Your task to perform on an android device: toggle show notifications on the lock screen Image 0: 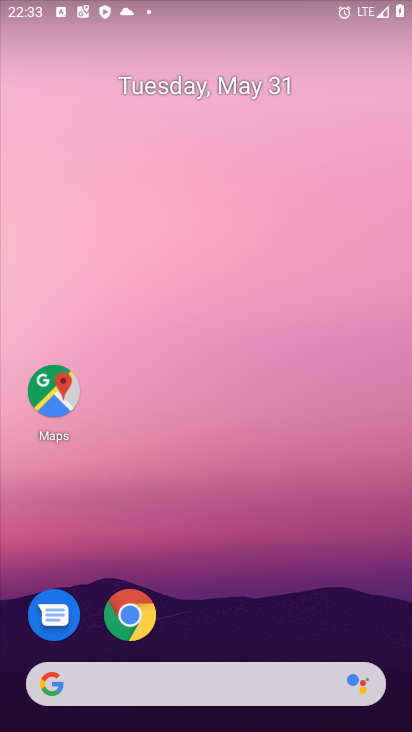
Step 0: drag from (374, 631) to (323, 134)
Your task to perform on an android device: toggle show notifications on the lock screen Image 1: 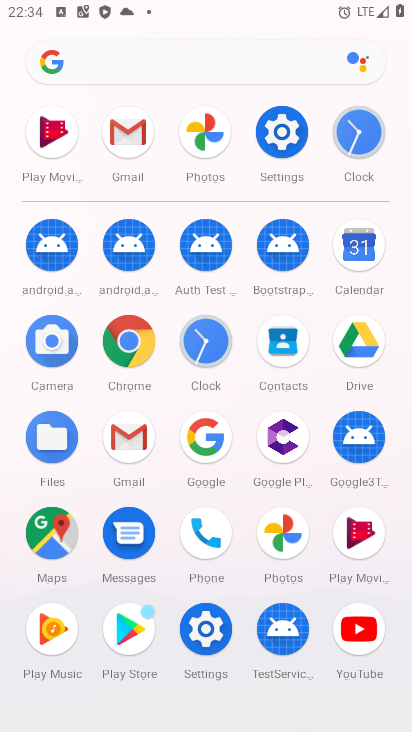
Step 1: click (205, 630)
Your task to perform on an android device: toggle show notifications on the lock screen Image 2: 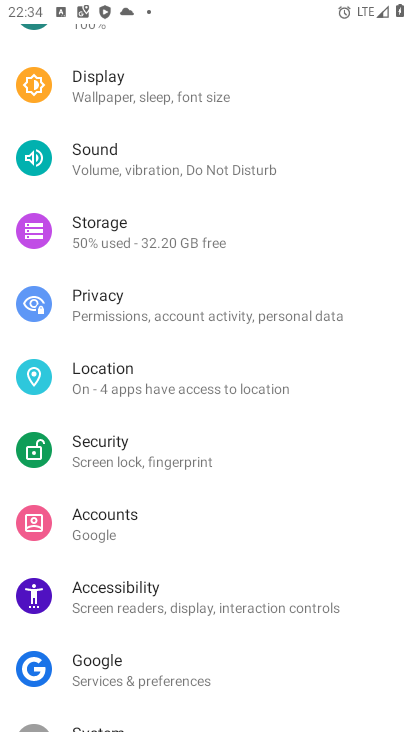
Step 2: drag from (338, 168) to (344, 398)
Your task to perform on an android device: toggle show notifications on the lock screen Image 3: 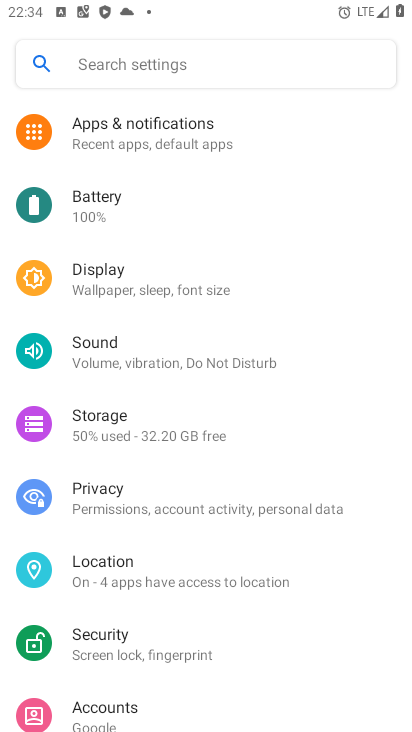
Step 3: click (137, 118)
Your task to perform on an android device: toggle show notifications on the lock screen Image 4: 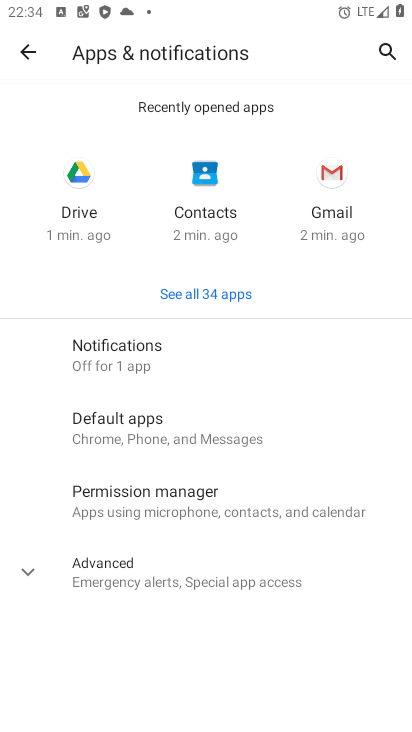
Step 4: click (121, 349)
Your task to perform on an android device: toggle show notifications on the lock screen Image 5: 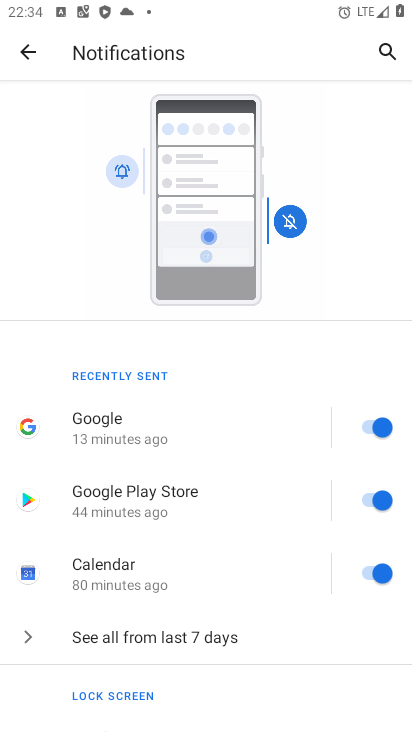
Step 5: drag from (277, 678) to (258, 106)
Your task to perform on an android device: toggle show notifications on the lock screen Image 6: 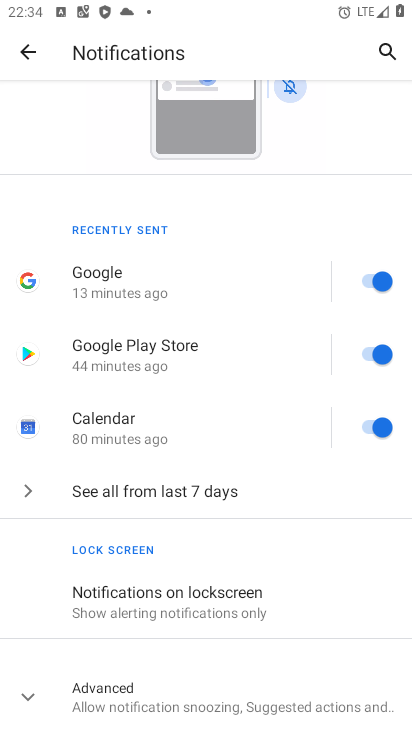
Step 6: click (167, 589)
Your task to perform on an android device: toggle show notifications on the lock screen Image 7: 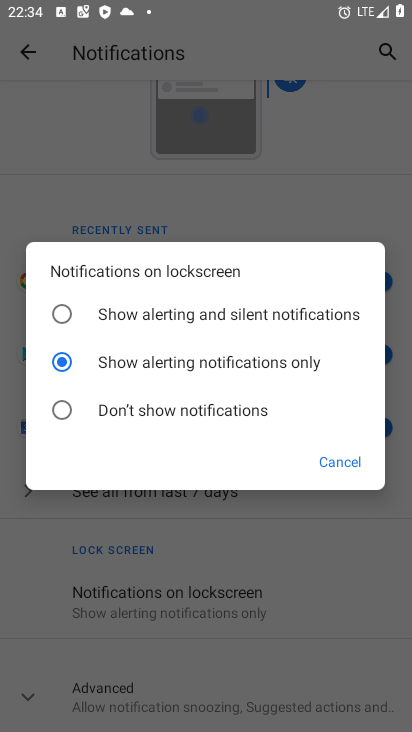
Step 7: click (63, 305)
Your task to perform on an android device: toggle show notifications on the lock screen Image 8: 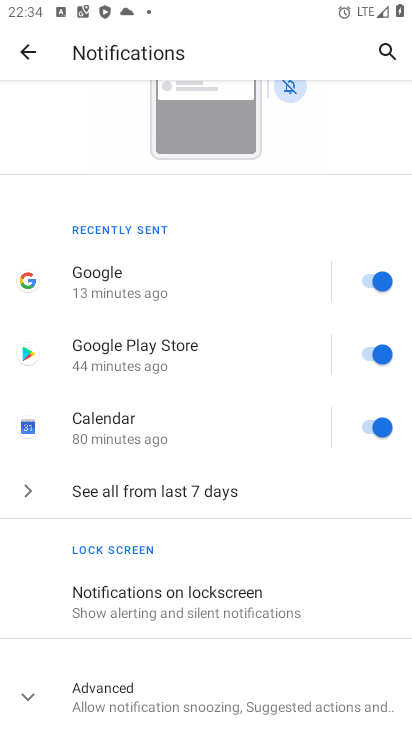
Step 8: task complete